Your task to perform on an android device: What's on my calendar tomorrow? Image 0: 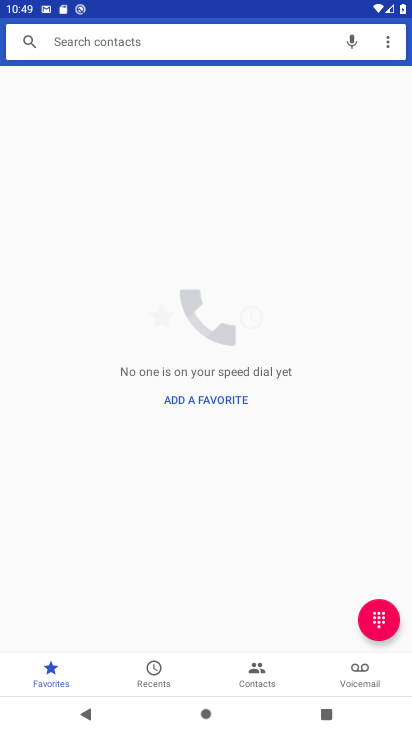
Step 0: press home button
Your task to perform on an android device: What's on my calendar tomorrow? Image 1: 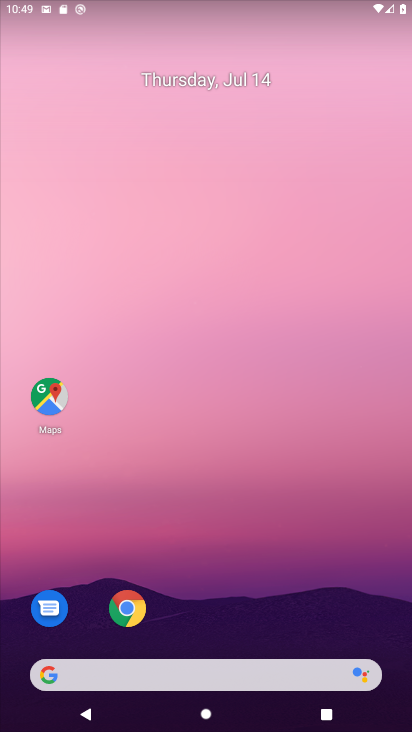
Step 1: drag from (283, 611) to (181, 32)
Your task to perform on an android device: What's on my calendar tomorrow? Image 2: 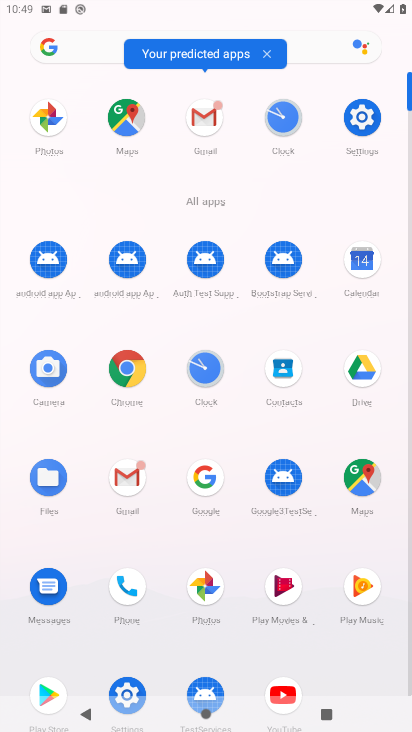
Step 2: click (368, 251)
Your task to perform on an android device: What's on my calendar tomorrow? Image 3: 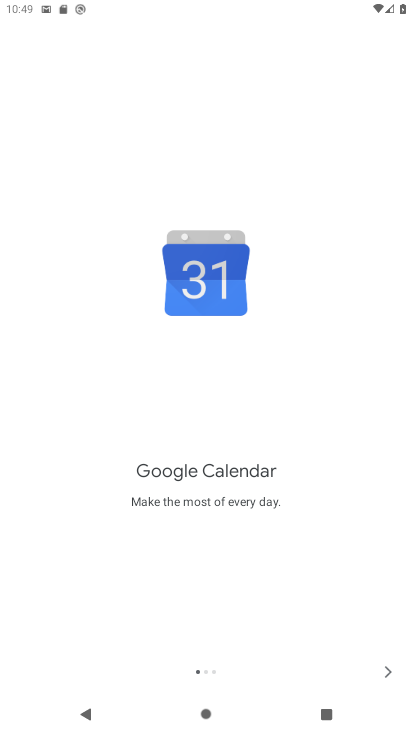
Step 3: click (385, 677)
Your task to perform on an android device: What's on my calendar tomorrow? Image 4: 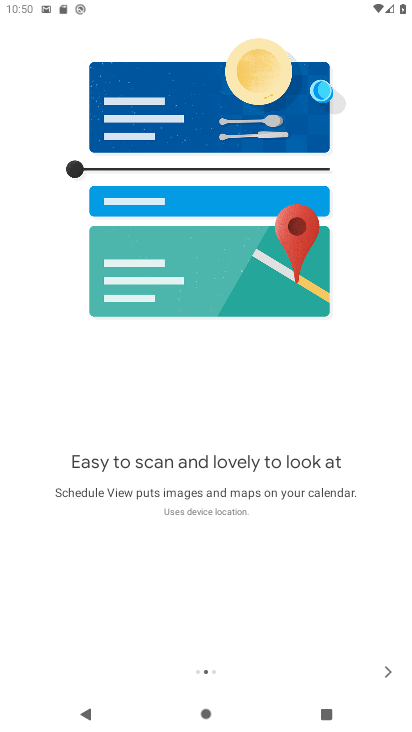
Step 4: click (384, 677)
Your task to perform on an android device: What's on my calendar tomorrow? Image 5: 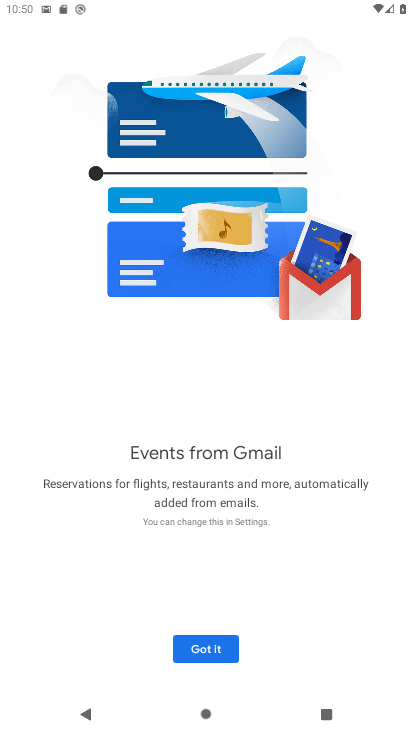
Step 5: click (384, 677)
Your task to perform on an android device: What's on my calendar tomorrow? Image 6: 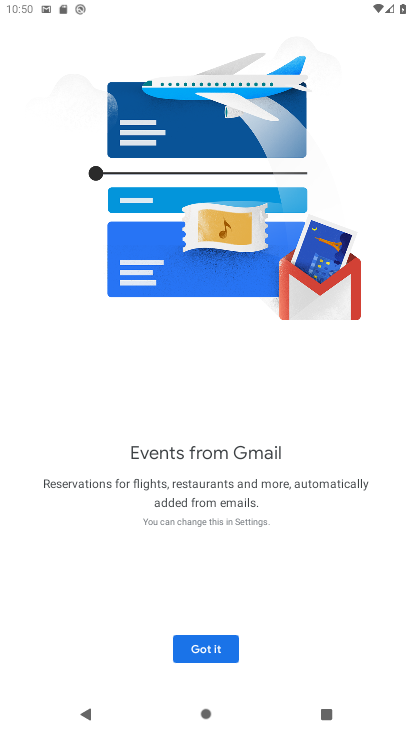
Step 6: click (199, 649)
Your task to perform on an android device: What's on my calendar tomorrow? Image 7: 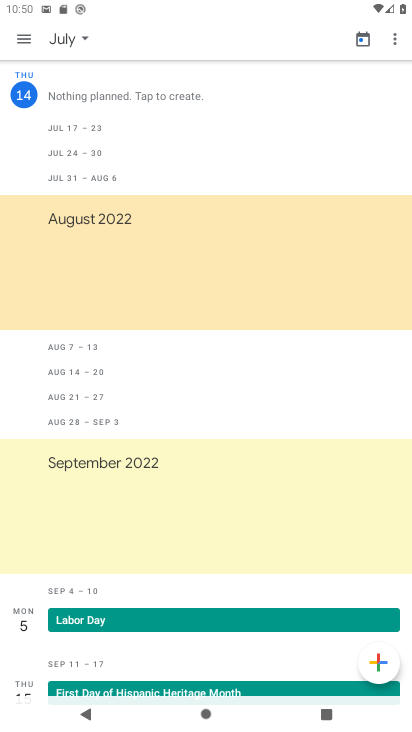
Step 7: click (26, 36)
Your task to perform on an android device: What's on my calendar tomorrow? Image 8: 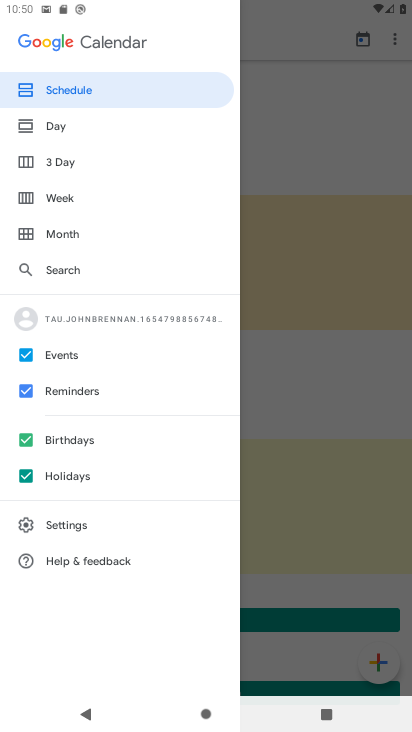
Step 8: click (56, 125)
Your task to perform on an android device: What's on my calendar tomorrow? Image 9: 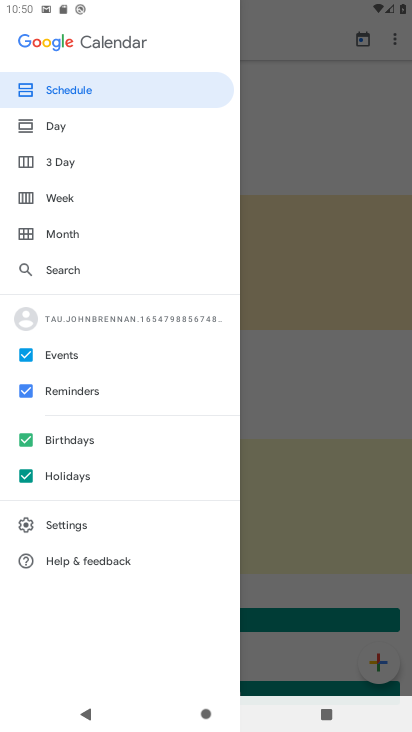
Step 9: click (56, 125)
Your task to perform on an android device: What's on my calendar tomorrow? Image 10: 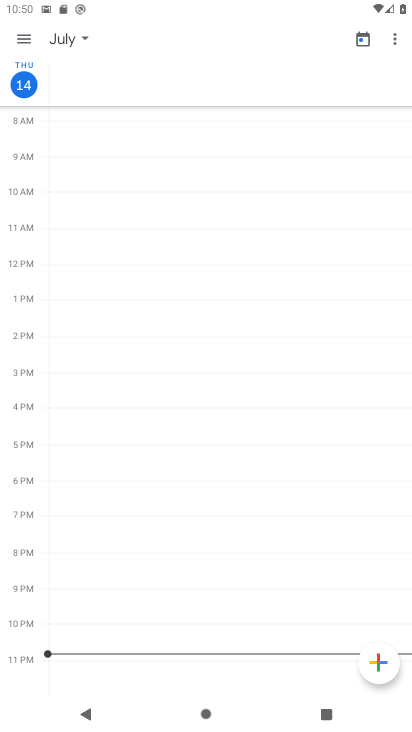
Step 10: task complete